Your task to perform on an android device: Check the weather Image 0: 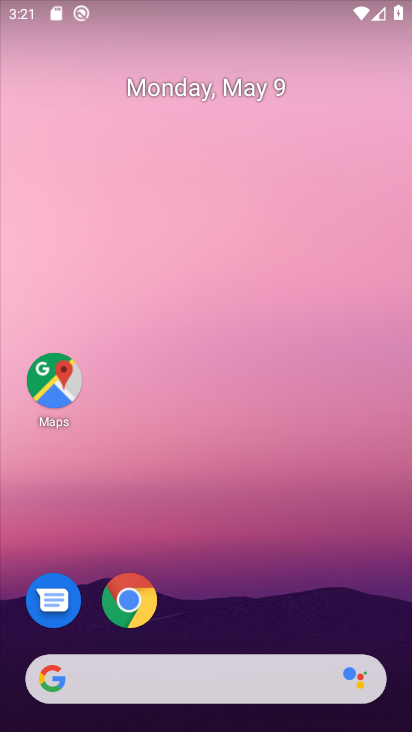
Step 0: click (207, 679)
Your task to perform on an android device: Check the weather Image 1: 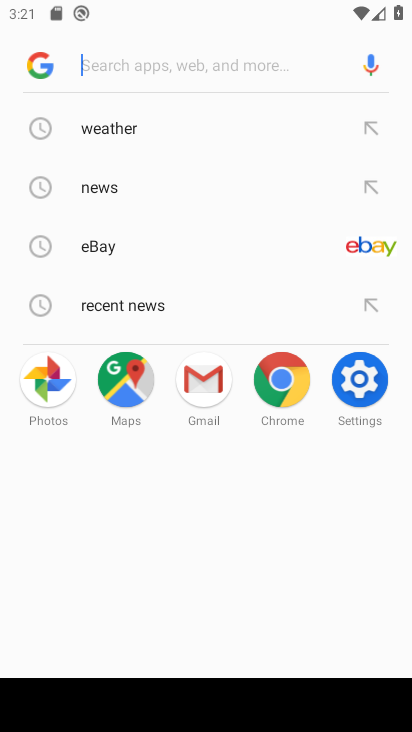
Step 1: click (130, 130)
Your task to perform on an android device: Check the weather Image 2: 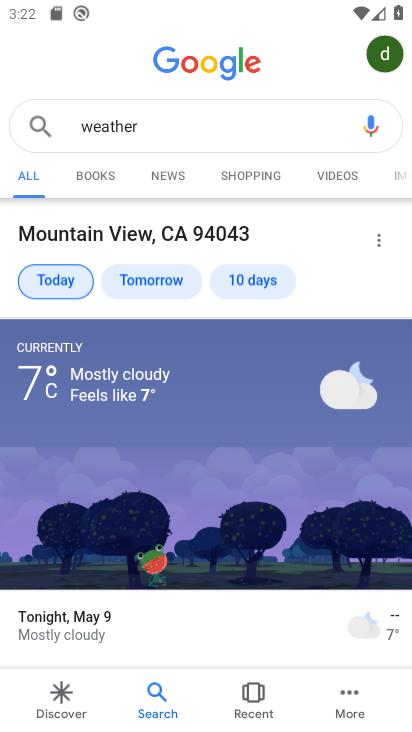
Step 2: task complete